Your task to perform on an android device: Go to Android settings Image 0: 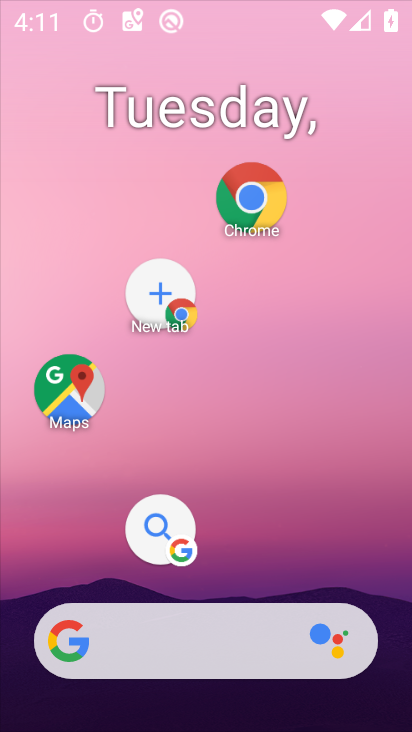
Step 0: drag from (212, 343) to (226, 175)
Your task to perform on an android device: Go to Android settings Image 1: 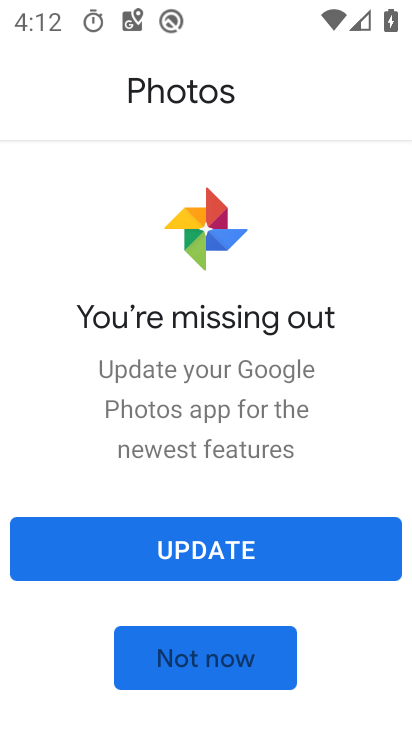
Step 1: press home button
Your task to perform on an android device: Go to Android settings Image 2: 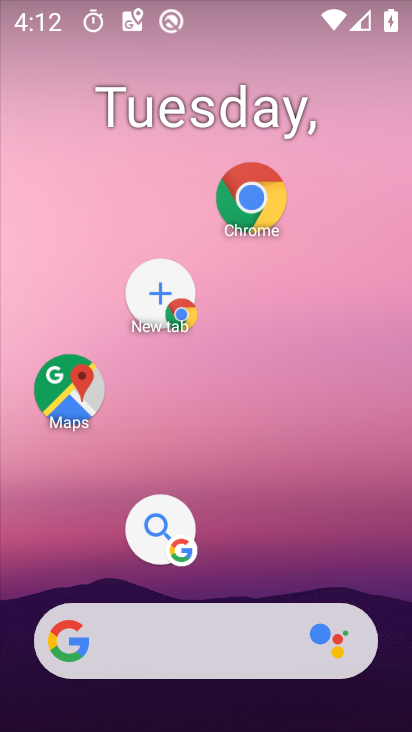
Step 2: drag from (207, 451) to (225, 43)
Your task to perform on an android device: Go to Android settings Image 3: 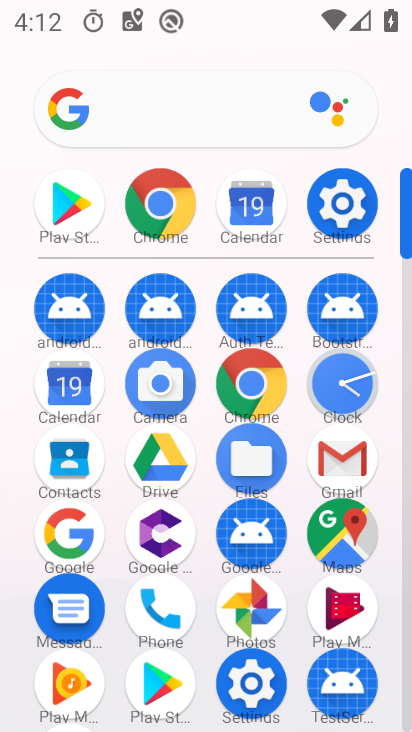
Step 3: click (341, 206)
Your task to perform on an android device: Go to Android settings Image 4: 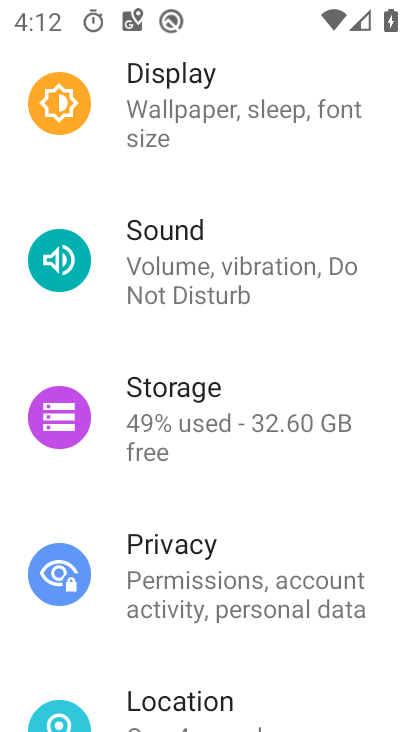
Step 4: task complete